Your task to perform on an android device: Open Youtube and go to the subscriptions tab Image 0: 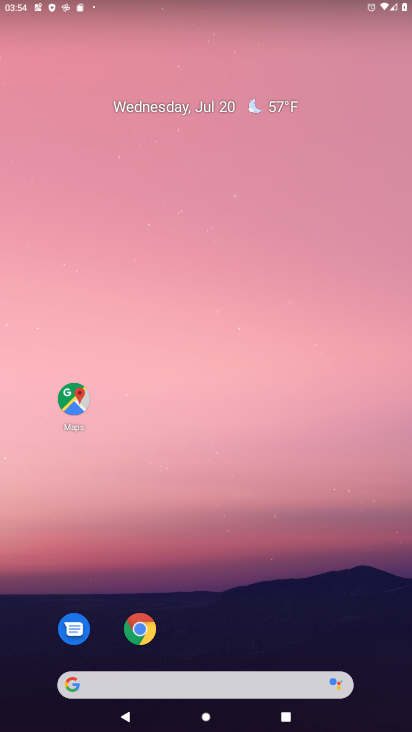
Step 0: drag from (382, 674) to (321, 39)
Your task to perform on an android device: Open Youtube and go to the subscriptions tab Image 1: 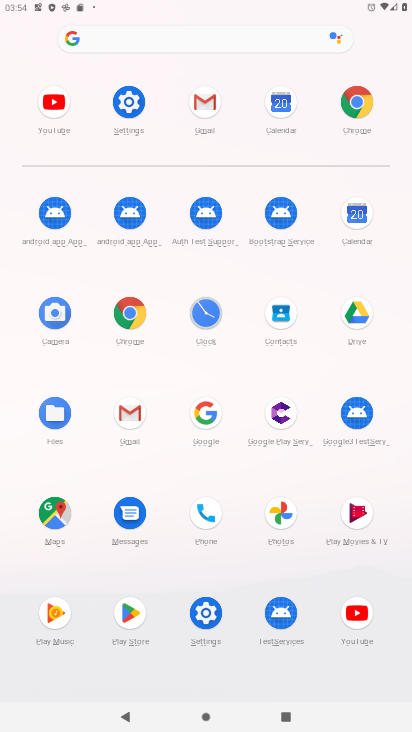
Step 1: click (356, 614)
Your task to perform on an android device: Open Youtube and go to the subscriptions tab Image 2: 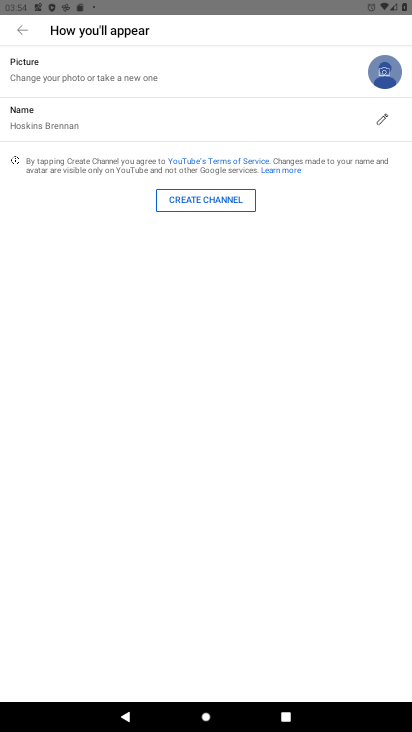
Step 2: press back button
Your task to perform on an android device: Open Youtube and go to the subscriptions tab Image 3: 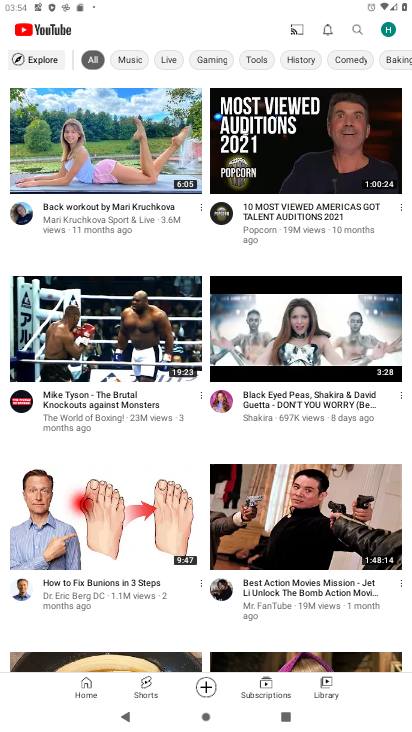
Step 3: click (262, 681)
Your task to perform on an android device: Open Youtube and go to the subscriptions tab Image 4: 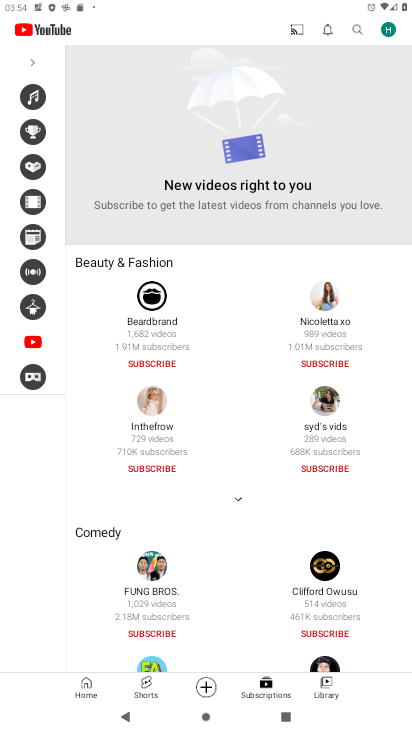
Step 4: task complete